Your task to perform on an android device: set the timer Image 0: 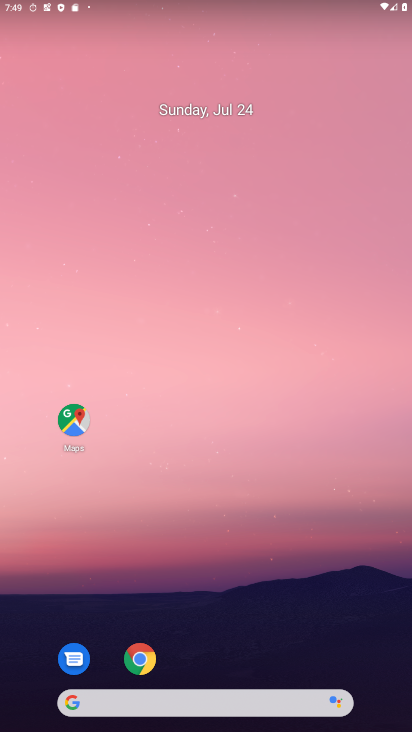
Step 0: drag from (340, 649) to (201, 34)
Your task to perform on an android device: set the timer Image 1: 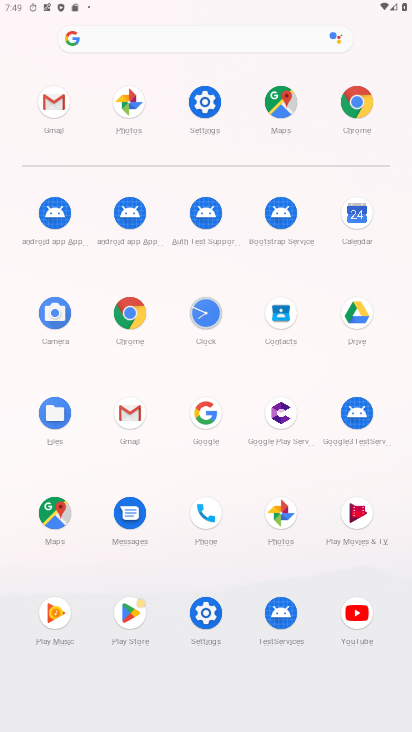
Step 1: click (209, 316)
Your task to perform on an android device: set the timer Image 2: 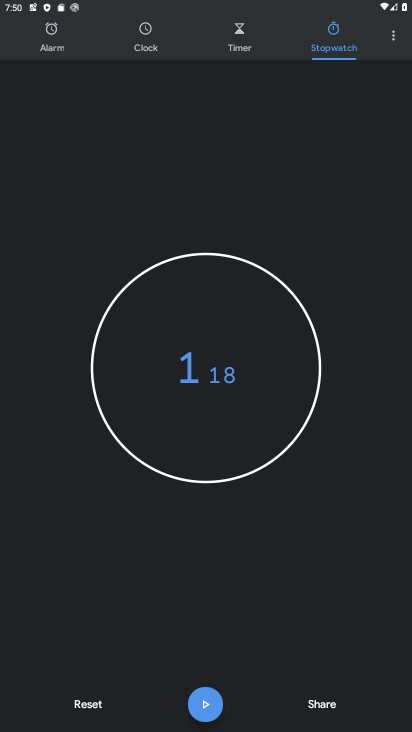
Step 2: click (245, 35)
Your task to perform on an android device: set the timer Image 3: 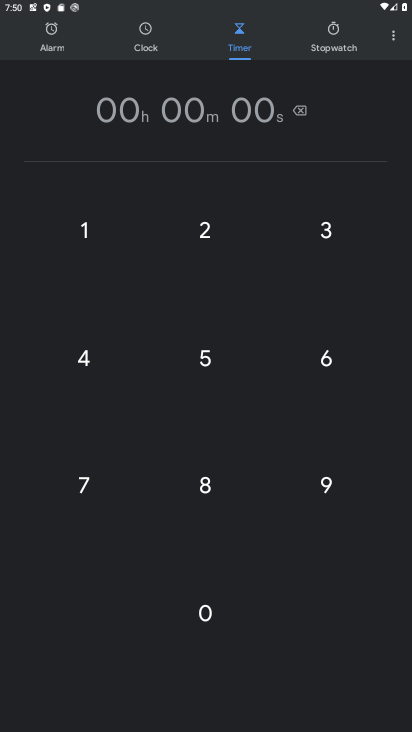
Step 3: click (224, 343)
Your task to perform on an android device: set the timer Image 4: 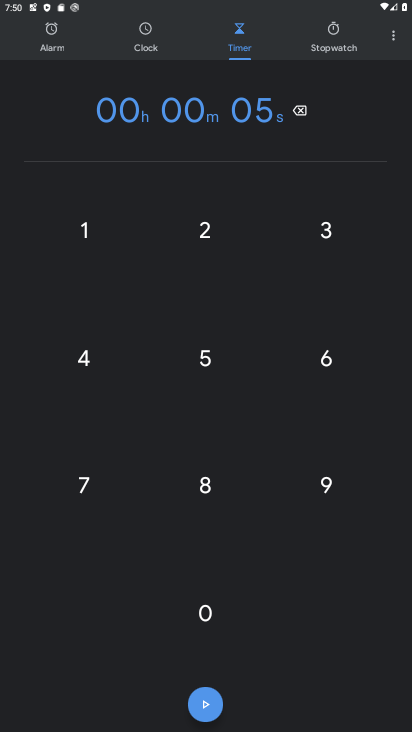
Step 4: task complete